Your task to perform on an android device: change the clock display to show seconds Image 0: 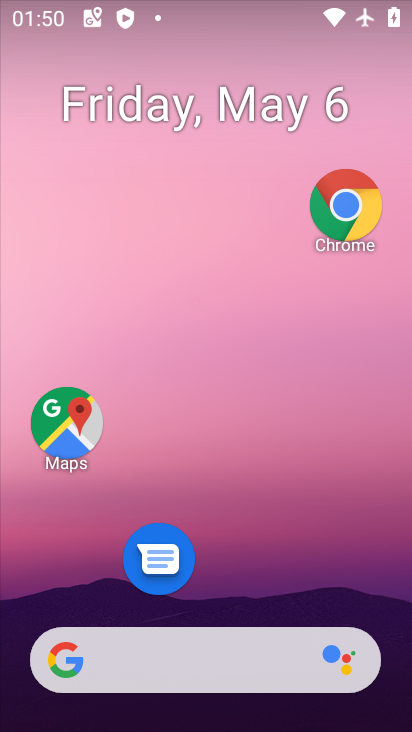
Step 0: drag from (208, 679) to (399, 1)
Your task to perform on an android device: change the clock display to show seconds Image 1: 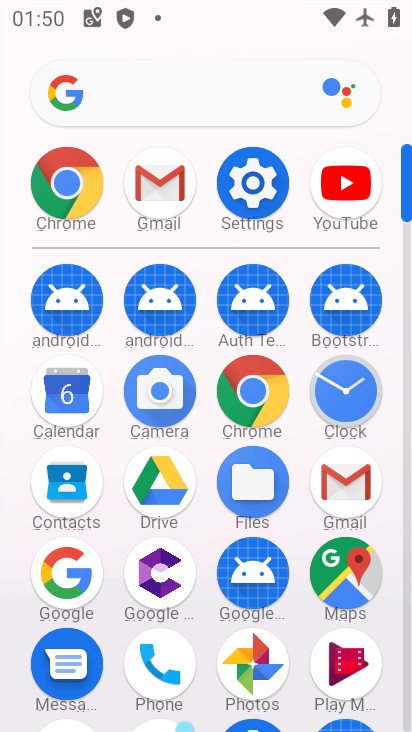
Step 1: click (334, 405)
Your task to perform on an android device: change the clock display to show seconds Image 2: 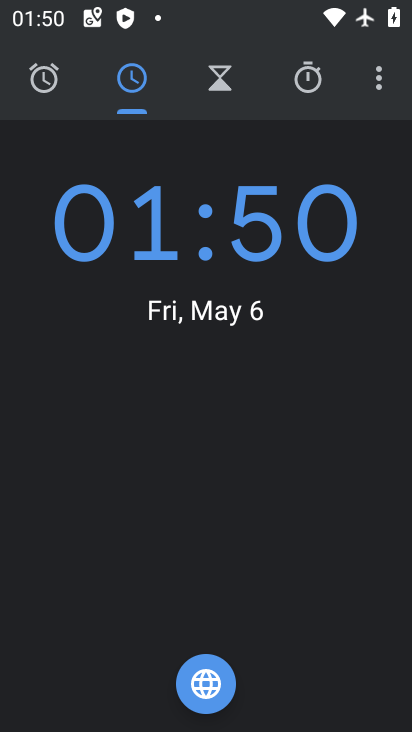
Step 2: click (385, 81)
Your task to perform on an android device: change the clock display to show seconds Image 3: 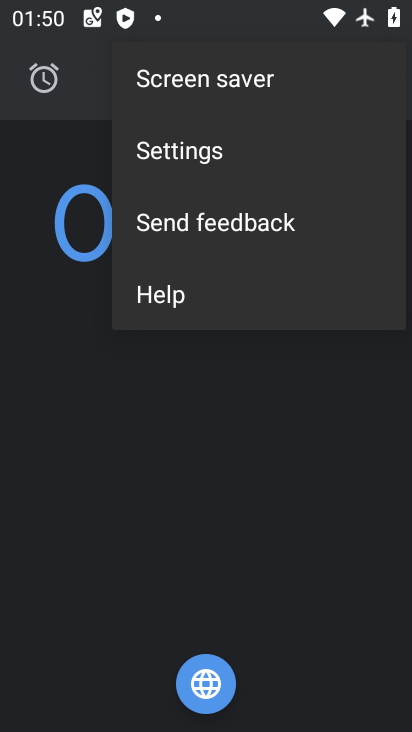
Step 3: click (194, 153)
Your task to perform on an android device: change the clock display to show seconds Image 4: 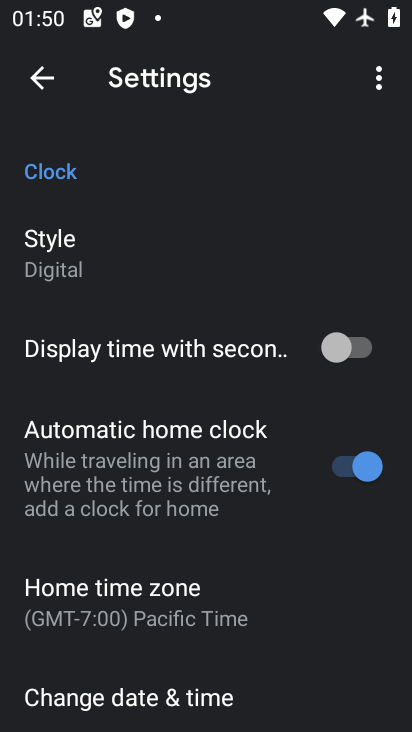
Step 4: click (362, 353)
Your task to perform on an android device: change the clock display to show seconds Image 5: 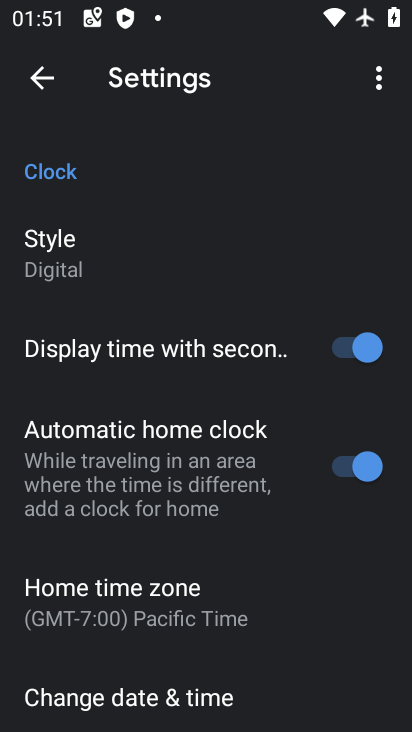
Step 5: task complete